Your task to perform on an android device: Go to calendar. Show me events next week Image 0: 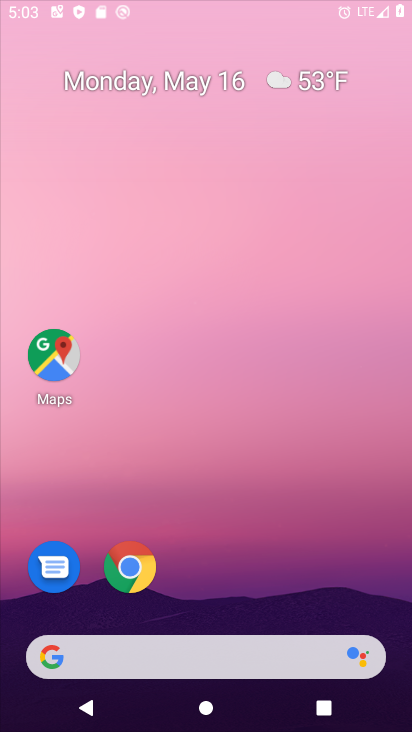
Step 0: drag from (302, 644) to (280, 170)
Your task to perform on an android device: Go to calendar. Show me events next week Image 1: 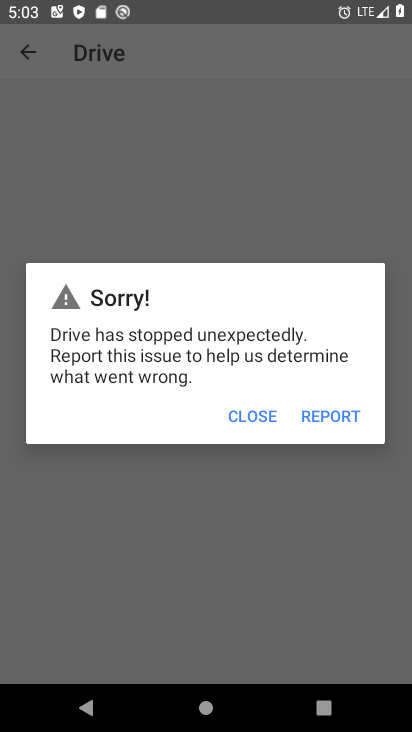
Step 1: press home button
Your task to perform on an android device: Go to calendar. Show me events next week Image 2: 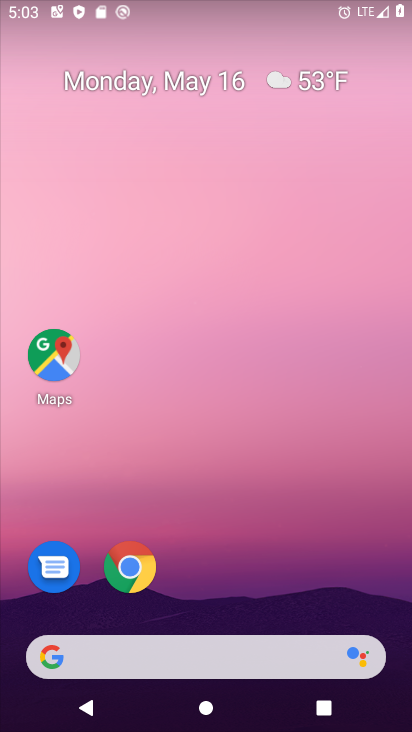
Step 2: drag from (277, 625) to (276, 62)
Your task to perform on an android device: Go to calendar. Show me events next week Image 3: 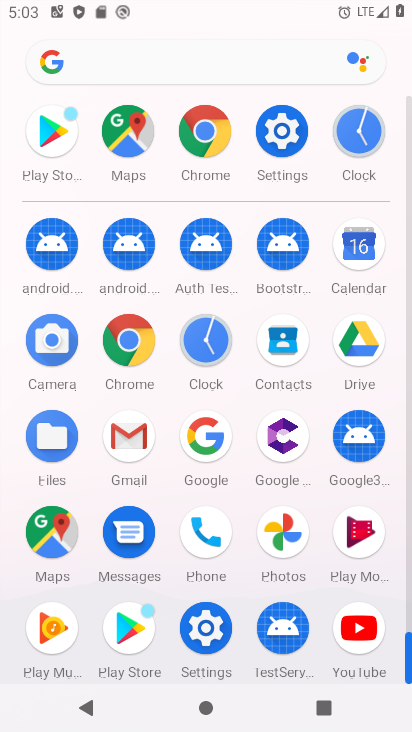
Step 3: click (374, 245)
Your task to perform on an android device: Go to calendar. Show me events next week Image 4: 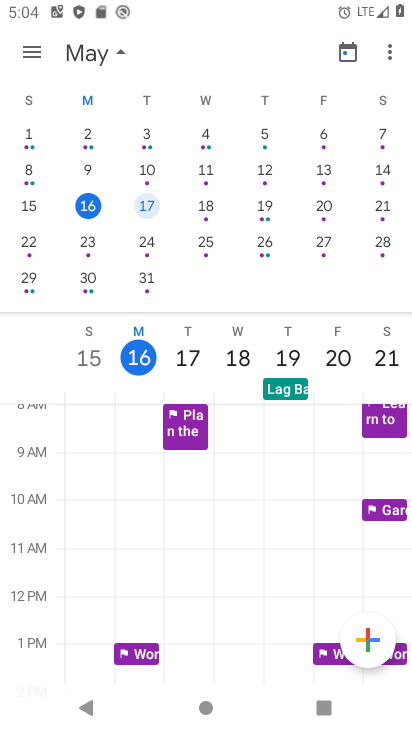
Step 4: click (201, 240)
Your task to perform on an android device: Go to calendar. Show me events next week Image 5: 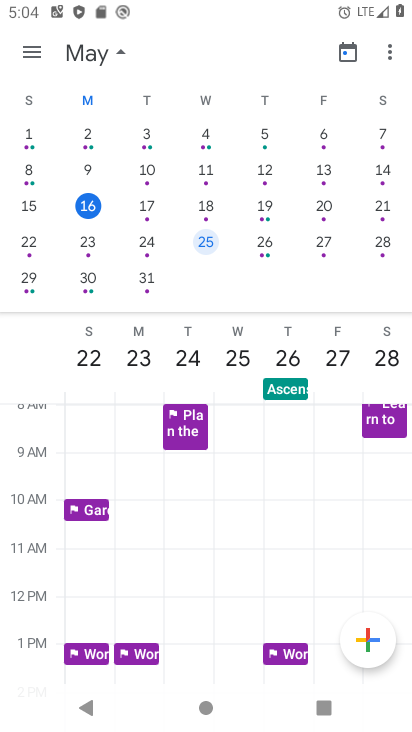
Step 5: task complete